Your task to perform on an android device: move an email to a new category in the gmail app Image 0: 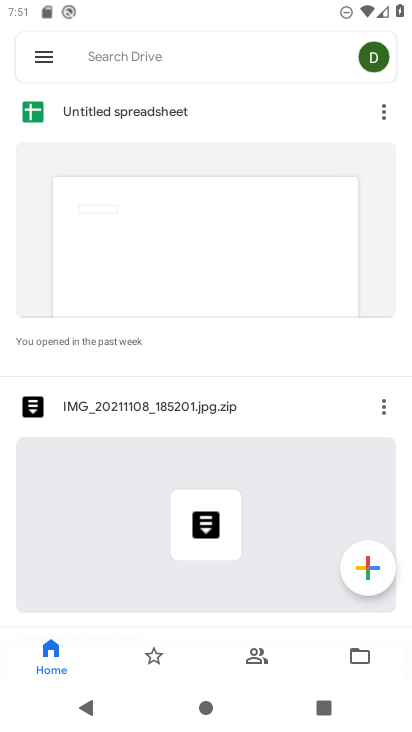
Step 0: press home button
Your task to perform on an android device: move an email to a new category in the gmail app Image 1: 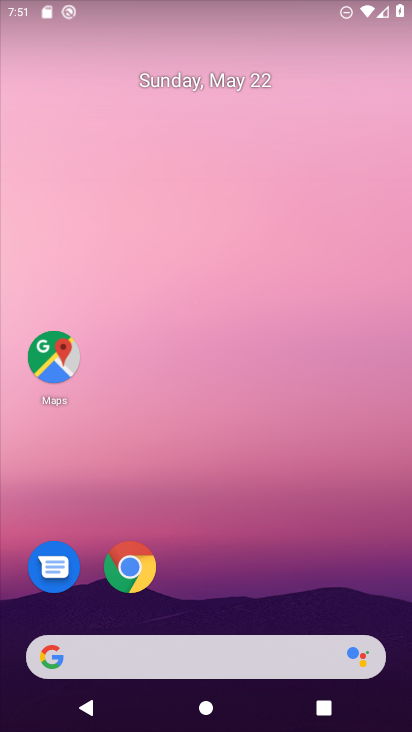
Step 1: drag from (285, 168) to (284, 64)
Your task to perform on an android device: move an email to a new category in the gmail app Image 2: 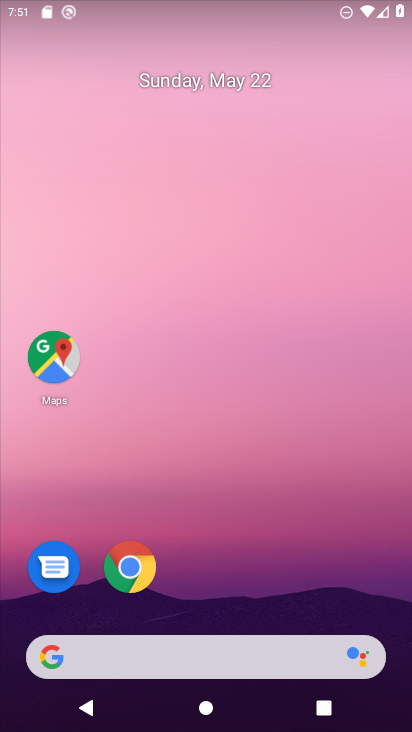
Step 2: drag from (241, 382) to (282, 141)
Your task to perform on an android device: move an email to a new category in the gmail app Image 3: 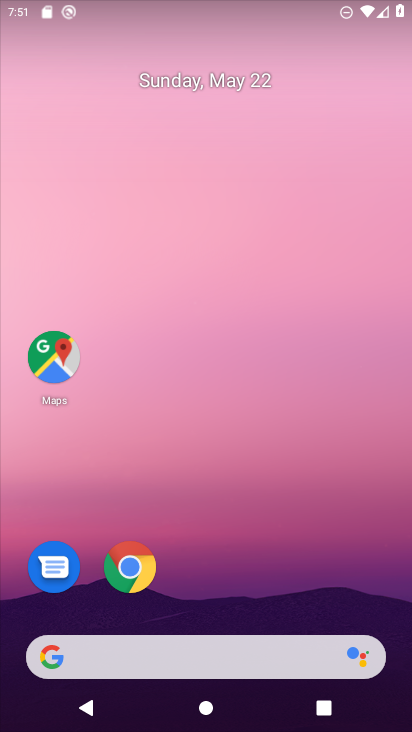
Step 3: drag from (188, 620) to (280, 76)
Your task to perform on an android device: move an email to a new category in the gmail app Image 4: 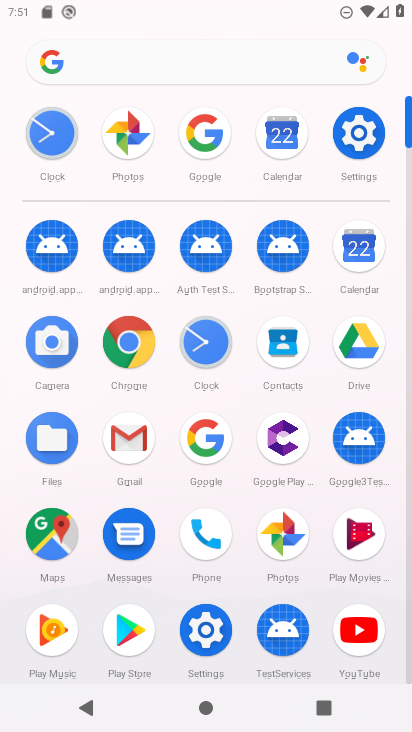
Step 4: click (136, 429)
Your task to perform on an android device: move an email to a new category in the gmail app Image 5: 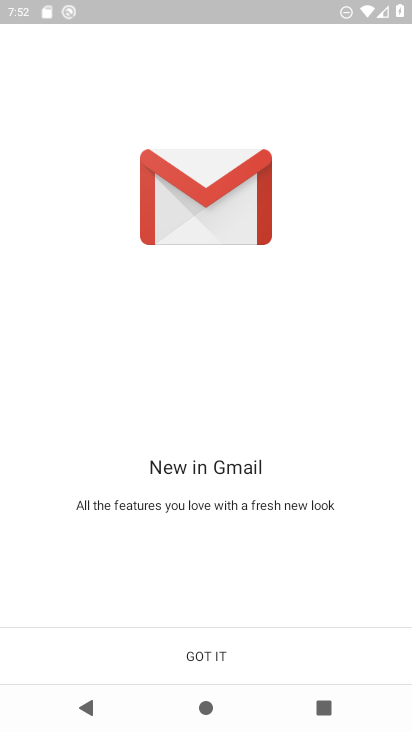
Step 5: click (206, 677)
Your task to perform on an android device: move an email to a new category in the gmail app Image 6: 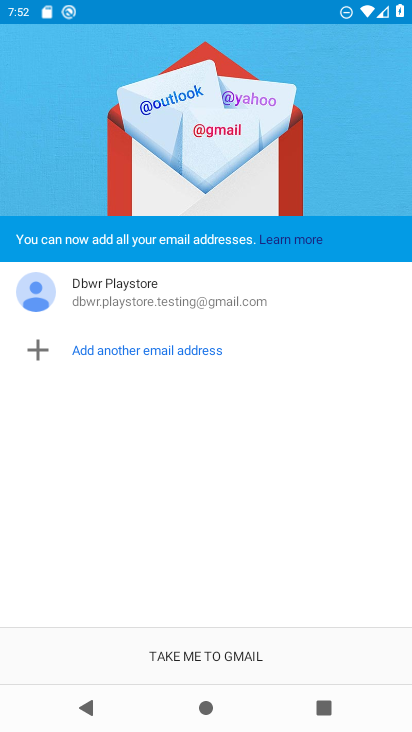
Step 6: click (231, 655)
Your task to perform on an android device: move an email to a new category in the gmail app Image 7: 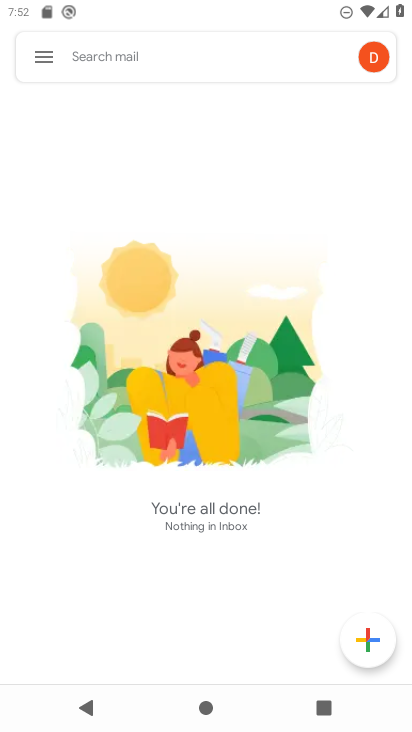
Step 7: click (29, 57)
Your task to perform on an android device: move an email to a new category in the gmail app Image 8: 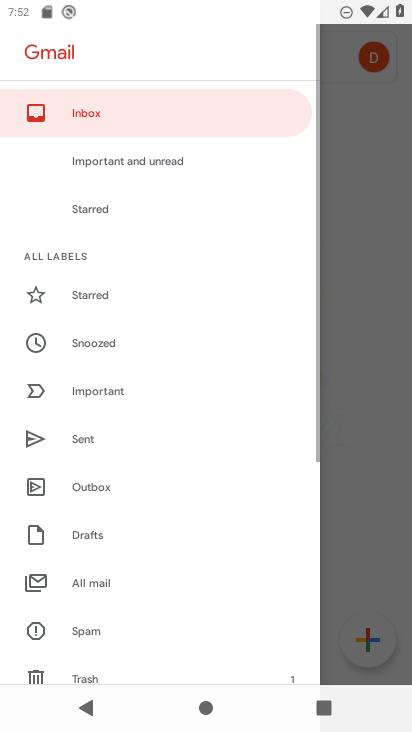
Step 8: click (111, 578)
Your task to perform on an android device: move an email to a new category in the gmail app Image 9: 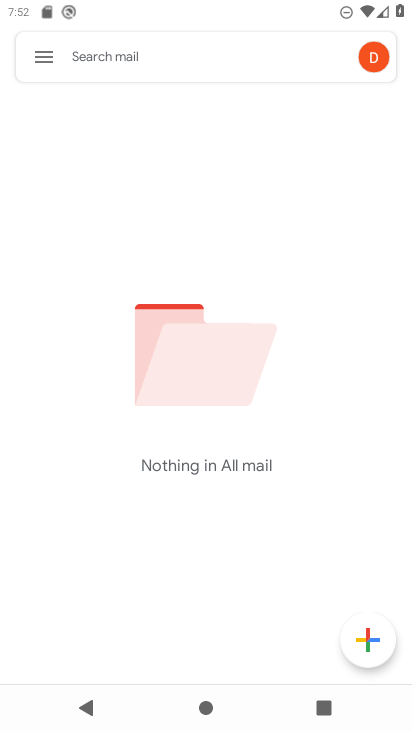
Step 9: task complete